Your task to perform on an android device: install app "Venmo" Image 0: 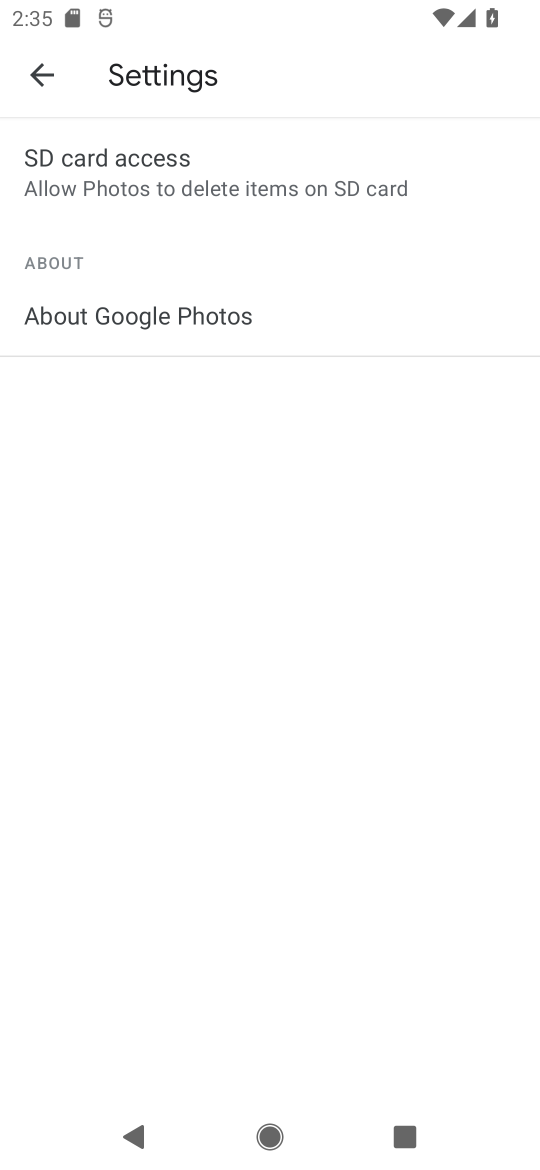
Step 0: press home button
Your task to perform on an android device: install app "Venmo" Image 1: 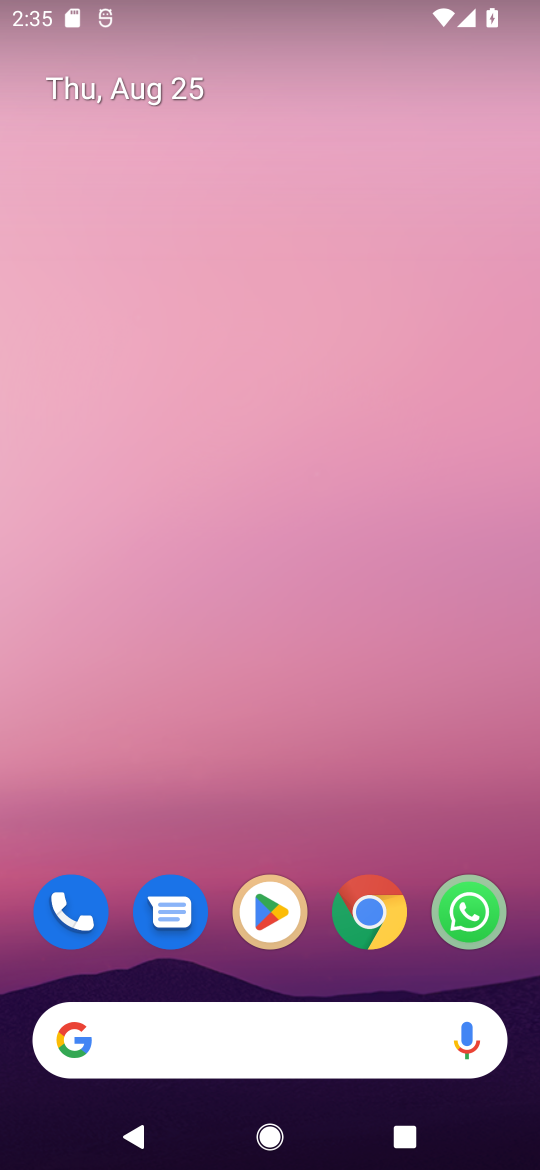
Step 1: drag from (275, 931) to (275, 320)
Your task to perform on an android device: install app "Venmo" Image 2: 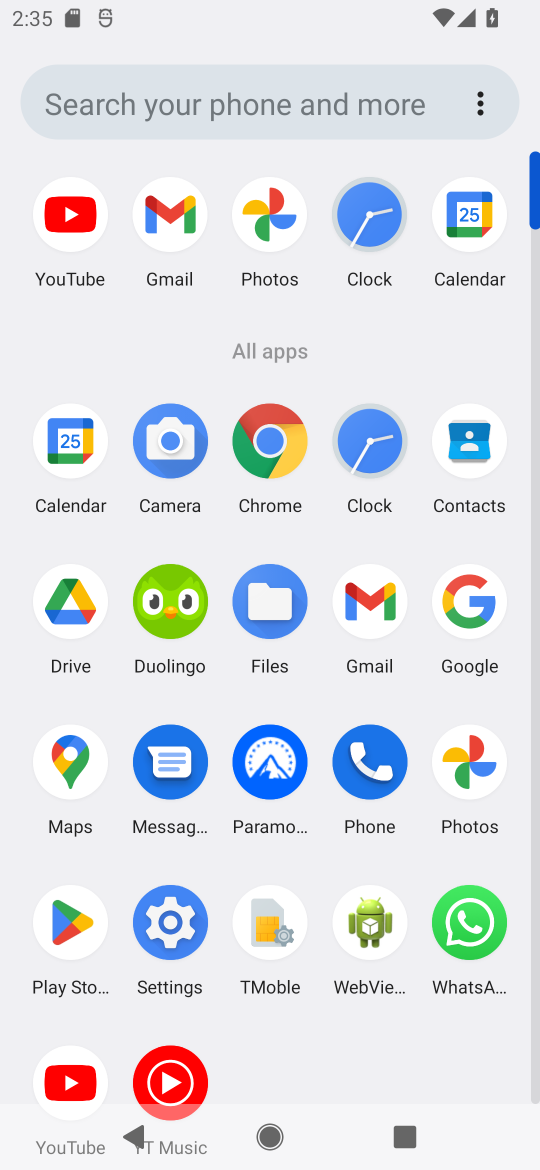
Step 2: click (62, 933)
Your task to perform on an android device: install app "Venmo" Image 3: 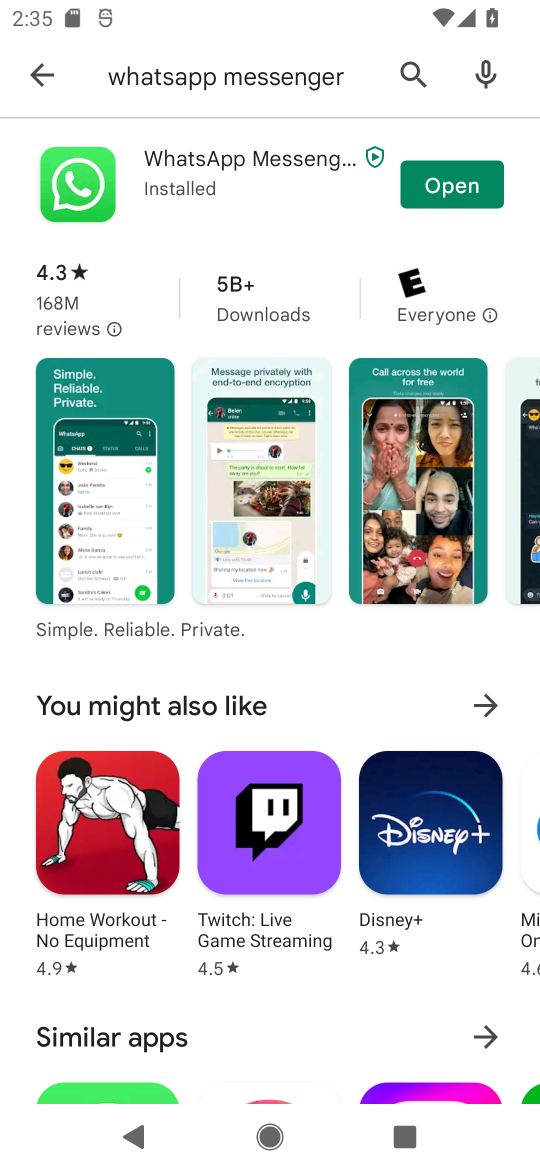
Step 3: click (406, 76)
Your task to perform on an android device: install app "Venmo" Image 4: 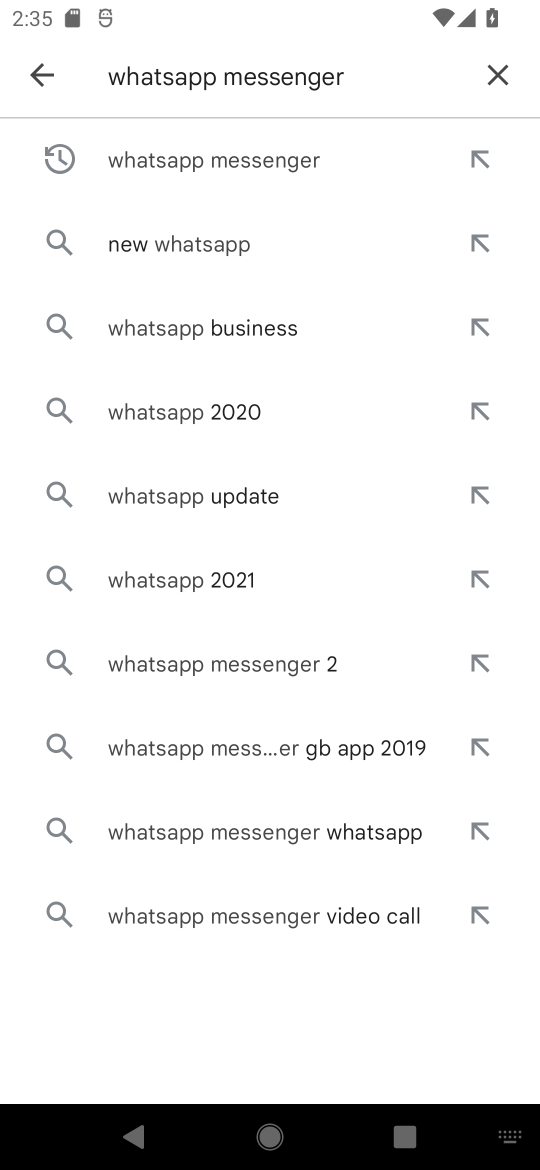
Step 4: click (489, 82)
Your task to perform on an android device: install app "Venmo" Image 5: 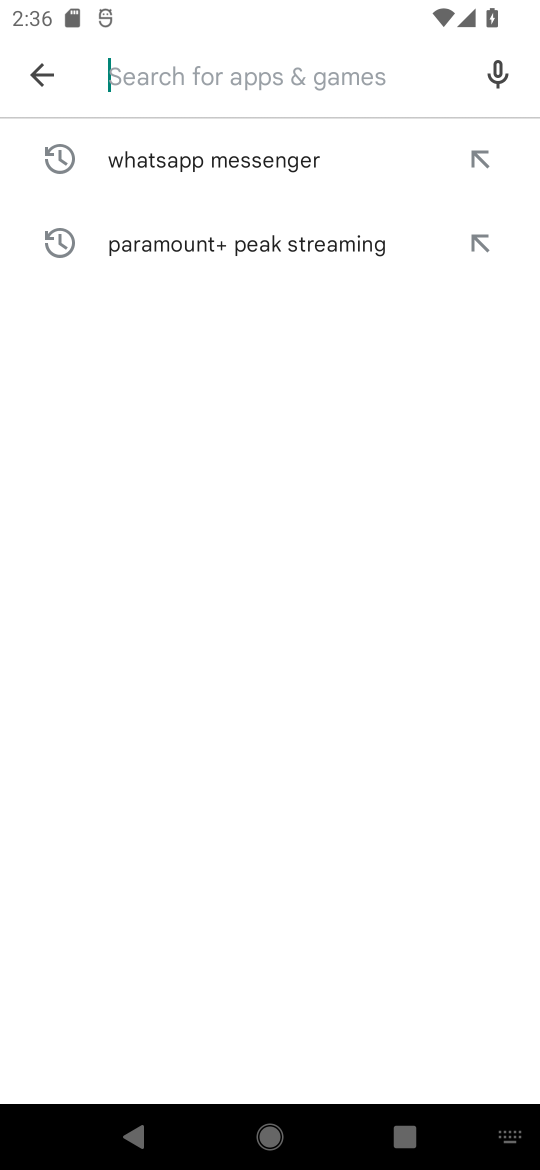
Step 5: type "Venmo"
Your task to perform on an android device: install app "Venmo" Image 6: 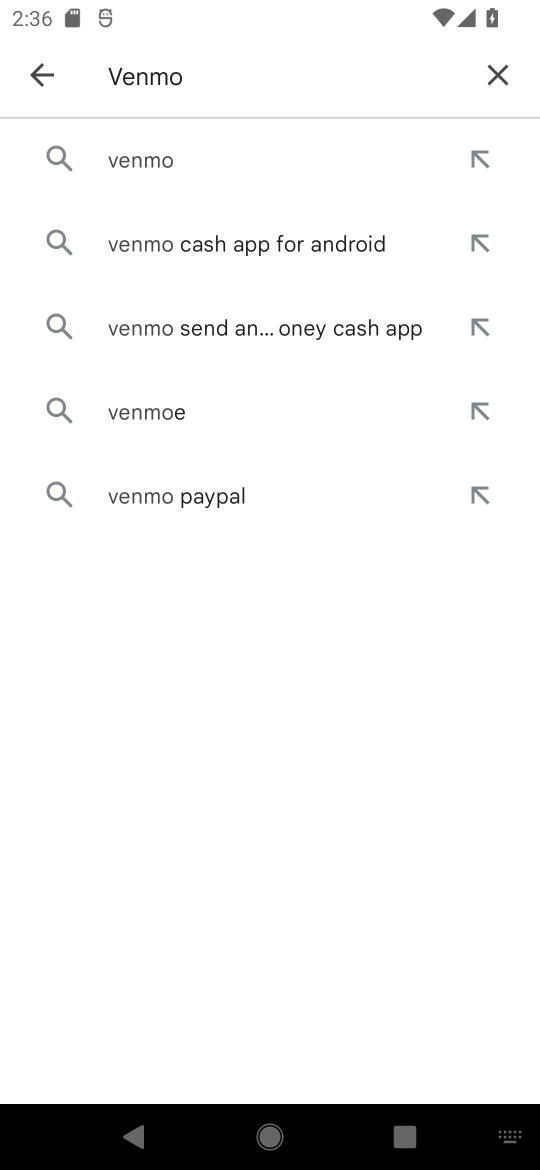
Step 6: click (128, 155)
Your task to perform on an android device: install app "Venmo" Image 7: 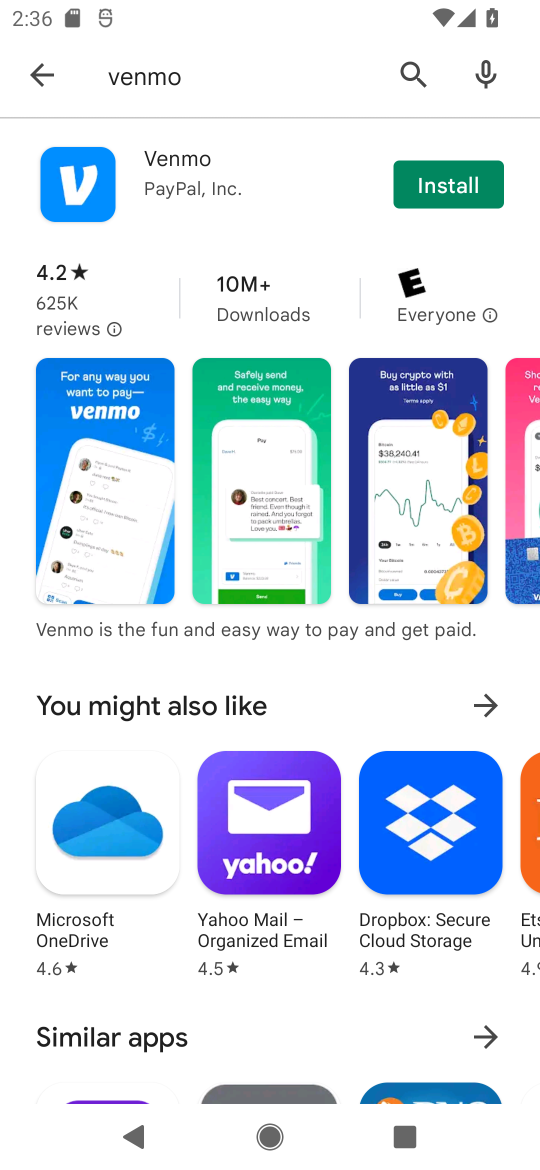
Step 7: click (469, 182)
Your task to perform on an android device: install app "Venmo" Image 8: 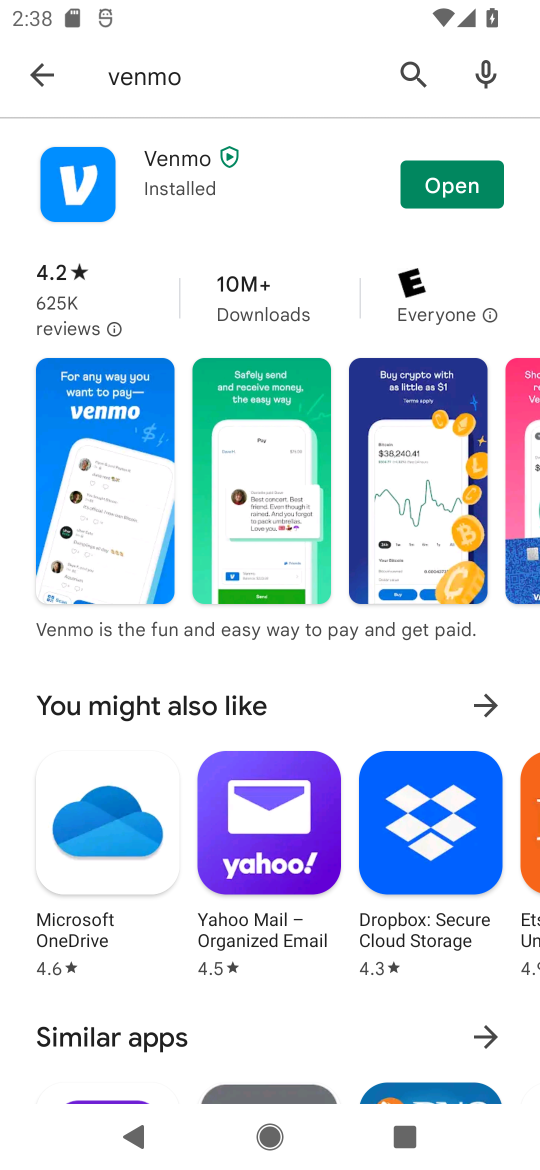
Step 8: task complete